Your task to perform on an android device: turn off notifications settings in the gmail app Image 0: 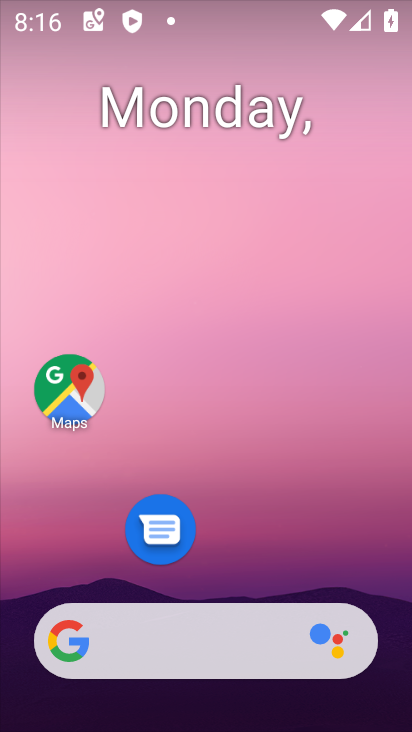
Step 0: drag from (224, 562) to (270, 194)
Your task to perform on an android device: turn off notifications settings in the gmail app Image 1: 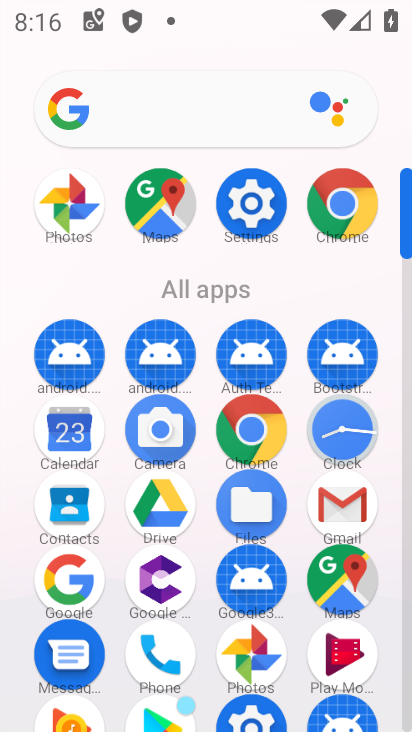
Step 1: click (335, 473)
Your task to perform on an android device: turn off notifications settings in the gmail app Image 2: 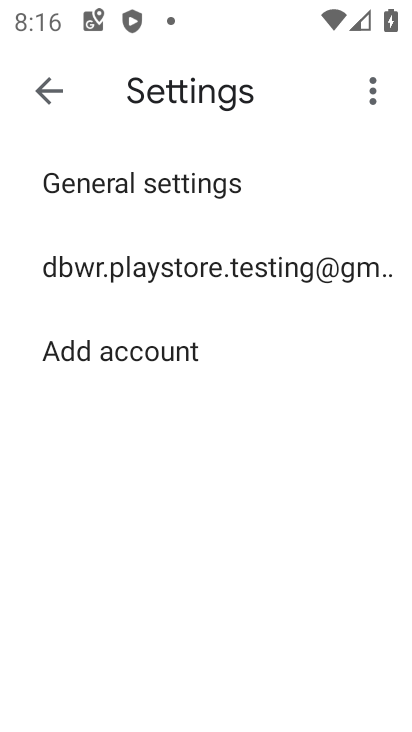
Step 2: click (202, 252)
Your task to perform on an android device: turn off notifications settings in the gmail app Image 3: 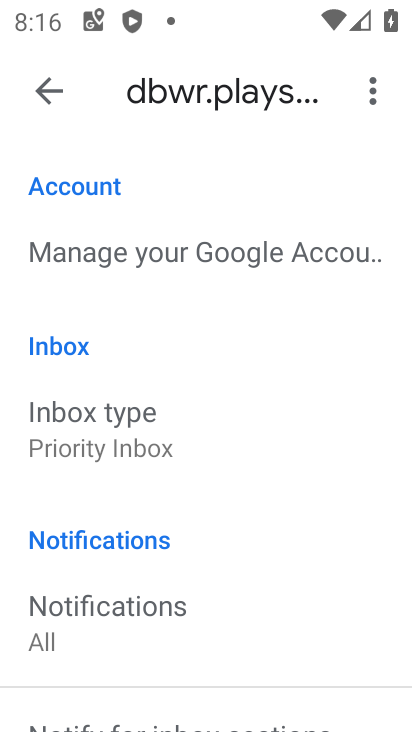
Step 3: drag from (205, 639) to (223, 212)
Your task to perform on an android device: turn off notifications settings in the gmail app Image 4: 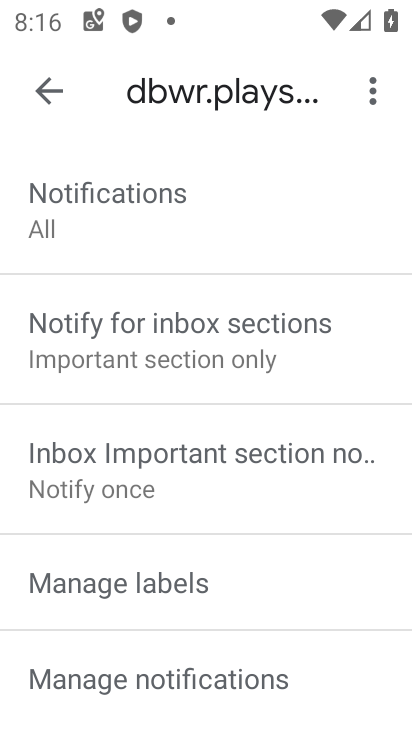
Step 4: click (246, 678)
Your task to perform on an android device: turn off notifications settings in the gmail app Image 5: 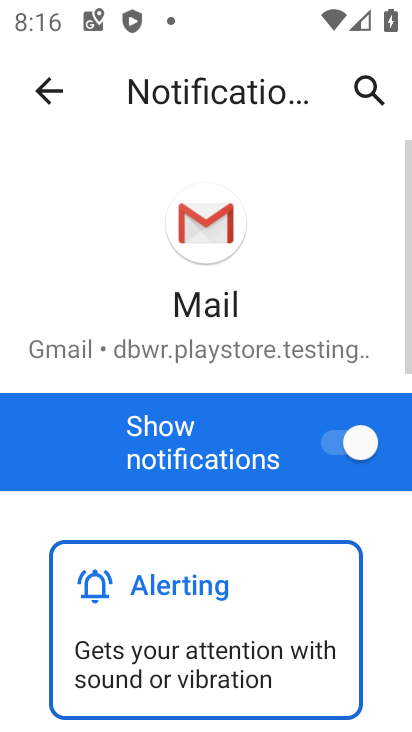
Step 5: click (326, 431)
Your task to perform on an android device: turn off notifications settings in the gmail app Image 6: 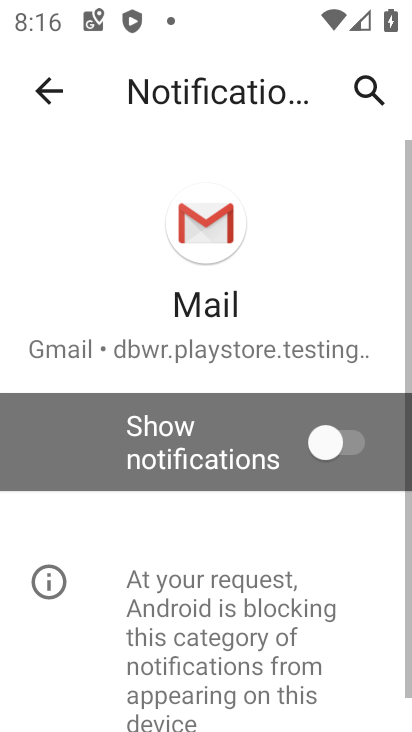
Step 6: task complete